Your task to perform on an android device: Go to Wikipedia Image 0: 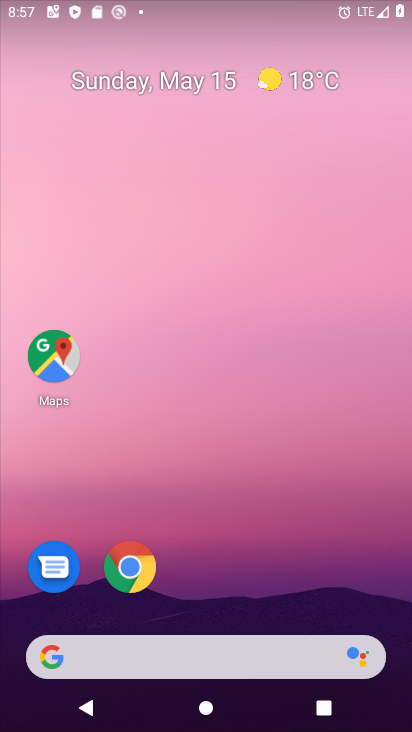
Step 0: click (258, 668)
Your task to perform on an android device: Go to Wikipedia Image 1: 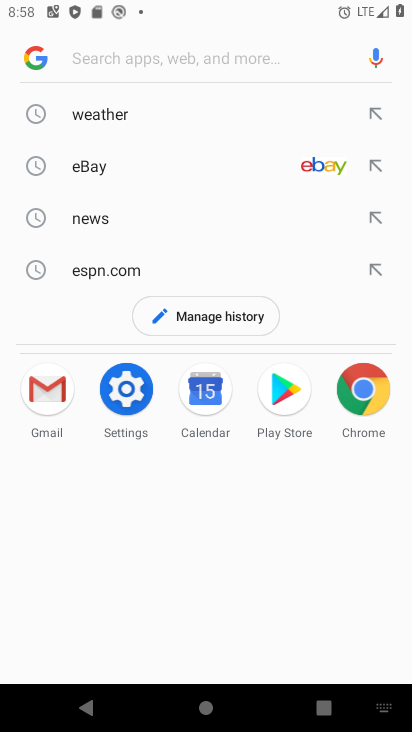
Step 1: type "wikipedia"
Your task to perform on an android device: Go to Wikipedia Image 2: 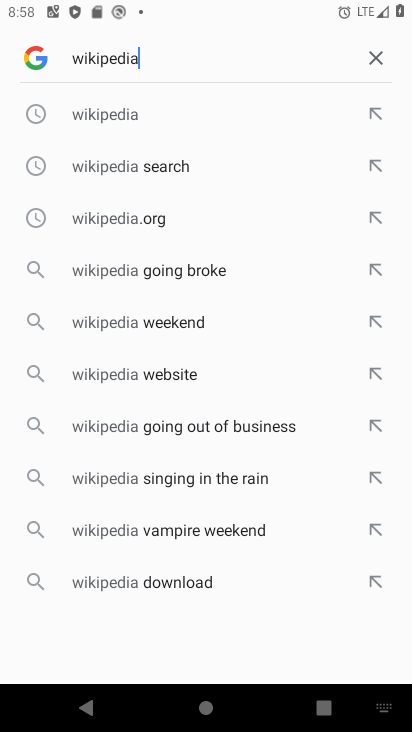
Step 2: click (145, 105)
Your task to perform on an android device: Go to Wikipedia Image 3: 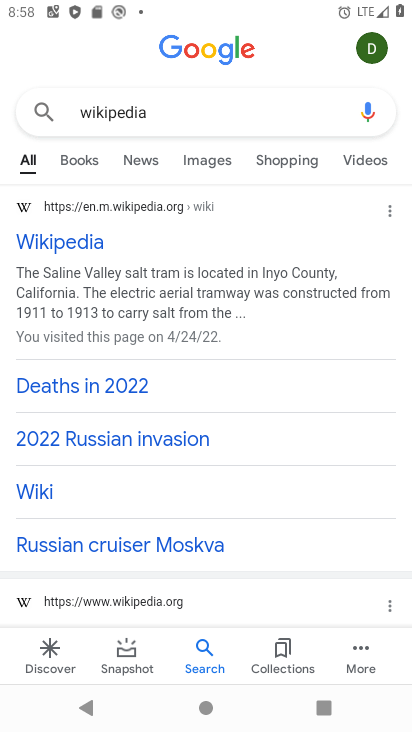
Step 3: click (143, 208)
Your task to perform on an android device: Go to Wikipedia Image 4: 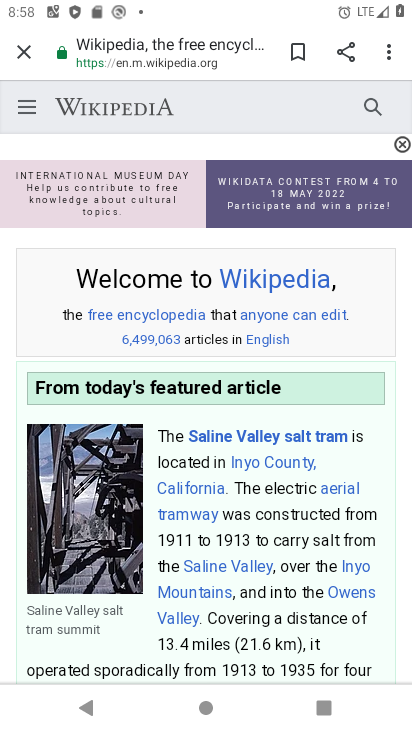
Step 4: task complete